Your task to perform on an android device: toggle translation in the chrome app Image 0: 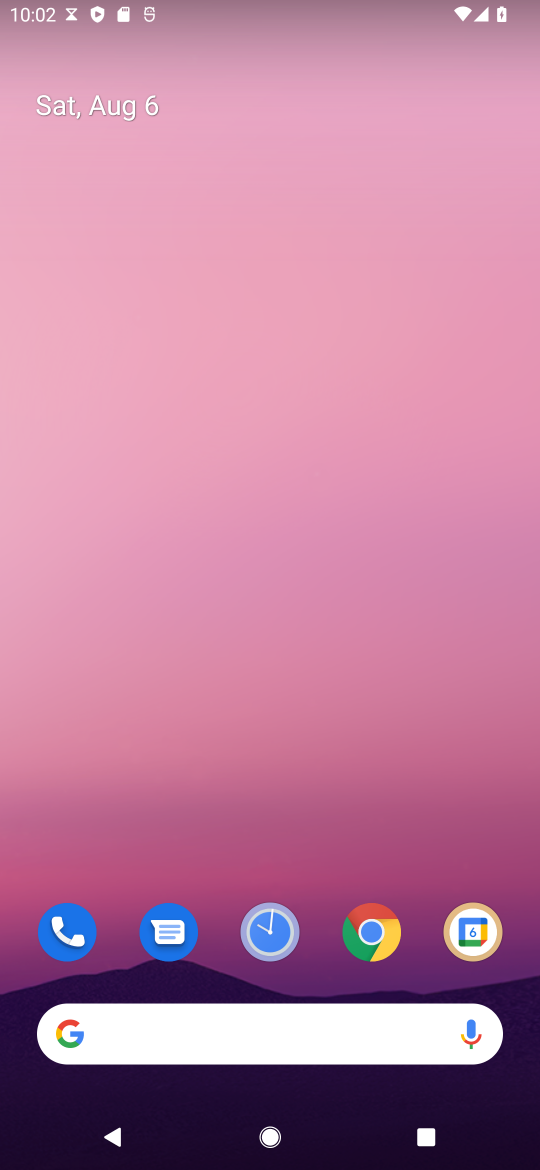
Step 0: click (372, 934)
Your task to perform on an android device: toggle translation in the chrome app Image 1: 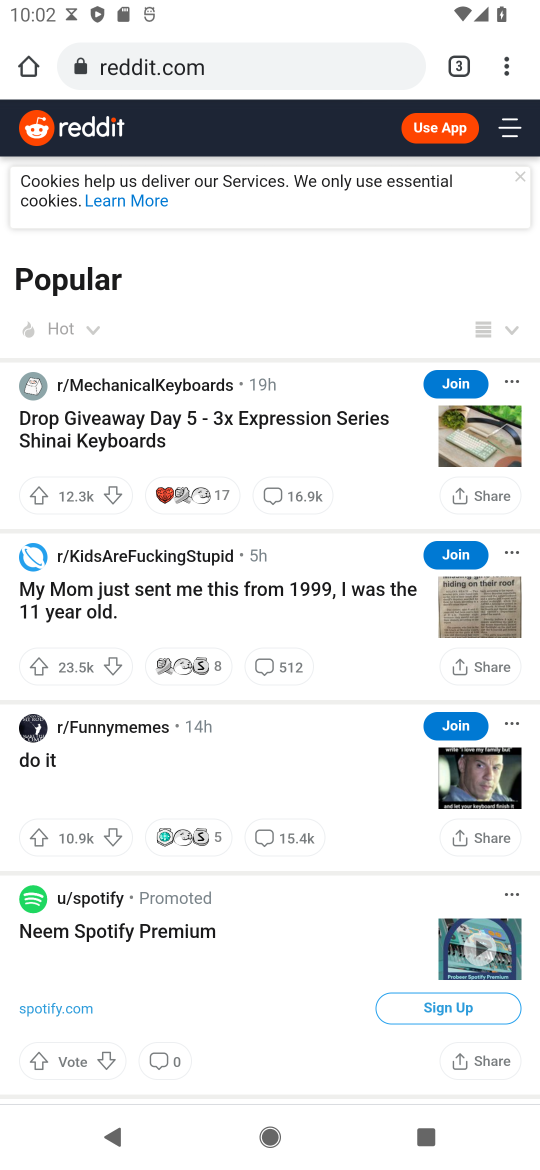
Step 1: click (507, 69)
Your task to perform on an android device: toggle translation in the chrome app Image 2: 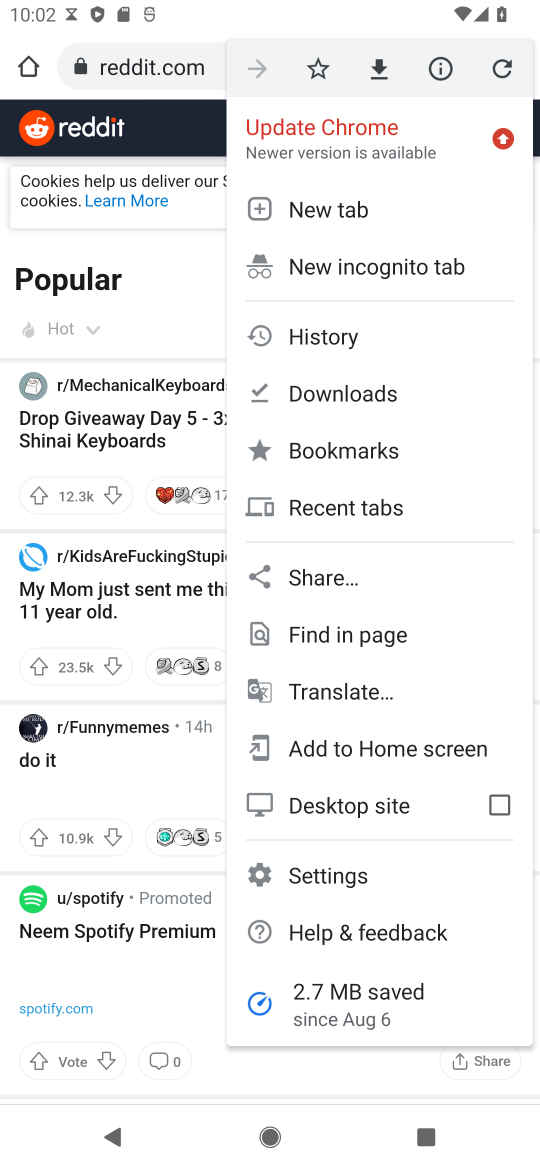
Step 2: click (352, 879)
Your task to perform on an android device: toggle translation in the chrome app Image 3: 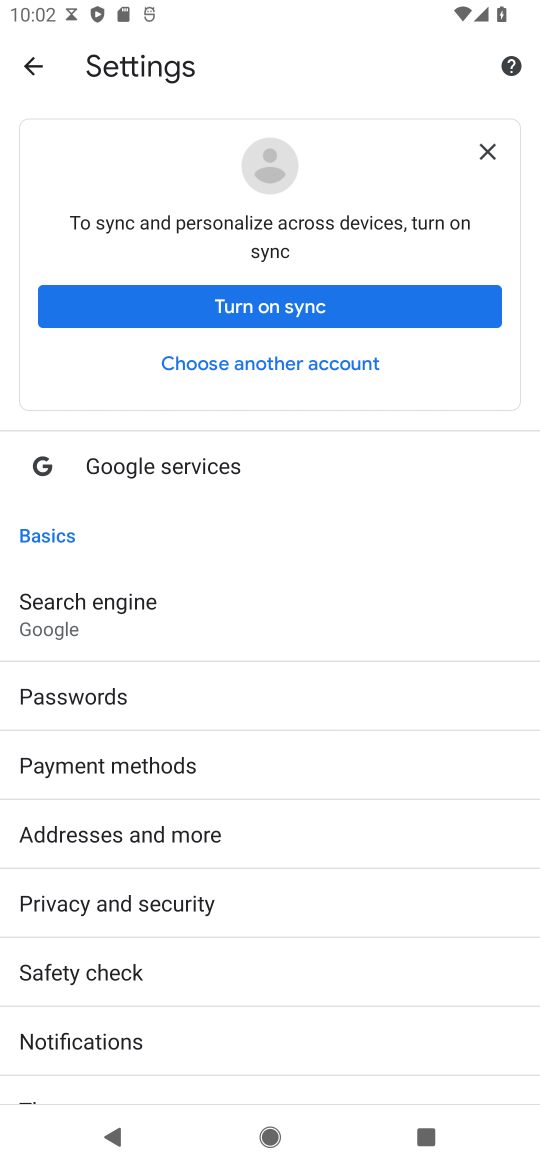
Step 3: drag from (100, 871) to (203, 724)
Your task to perform on an android device: toggle translation in the chrome app Image 4: 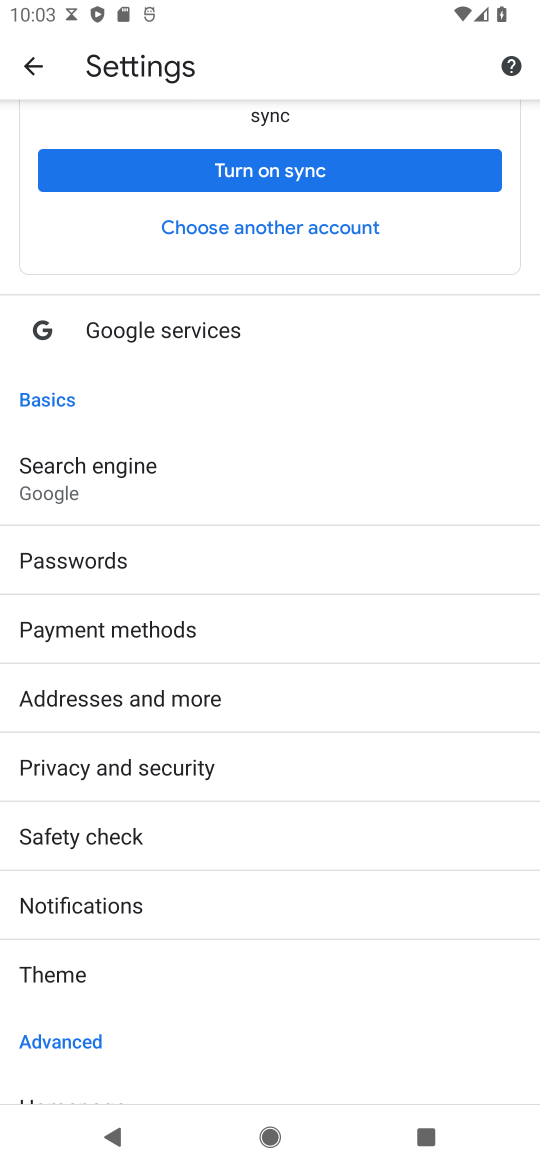
Step 4: drag from (129, 929) to (164, 772)
Your task to perform on an android device: toggle translation in the chrome app Image 5: 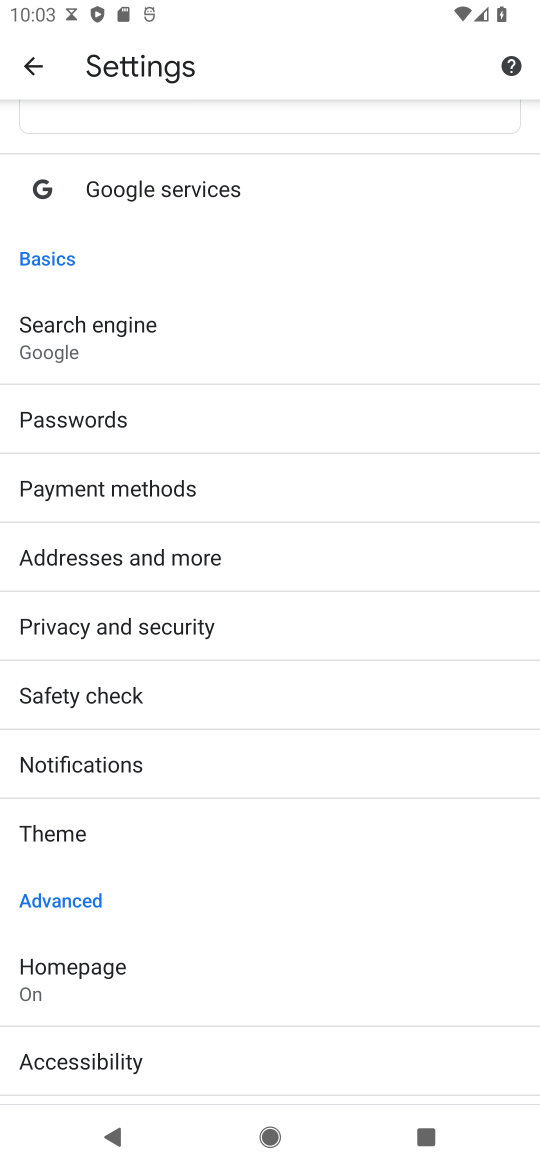
Step 5: drag from (143, 939) to (230, 789)
Your task to perform on an android device: toggle translation in the chrome app Image 6: 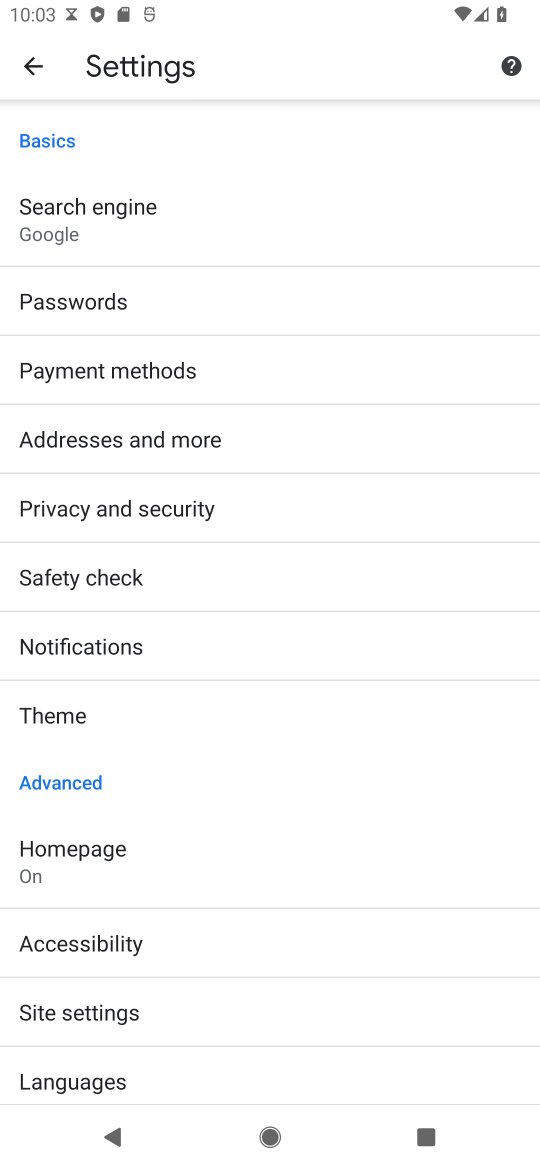
Step 6: drag from (155, 974) to (264, 815)
Your task to perform on an android device: toggle translation in the chrome app Image 7: 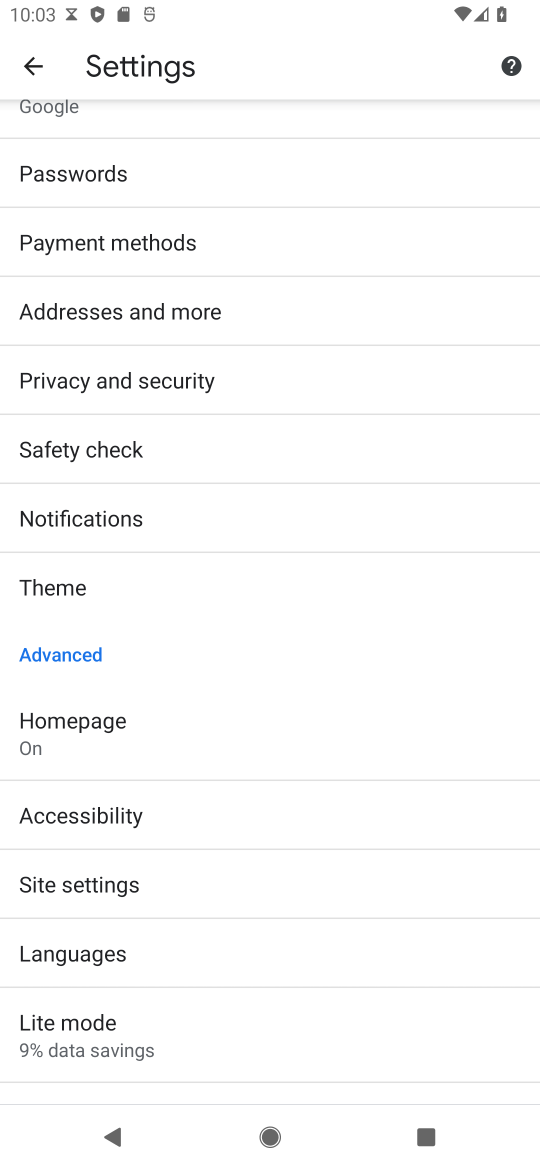
Step 7: click (108, 949)
Your task to perform on an android device: toggle translation in the chrome app Image 8: 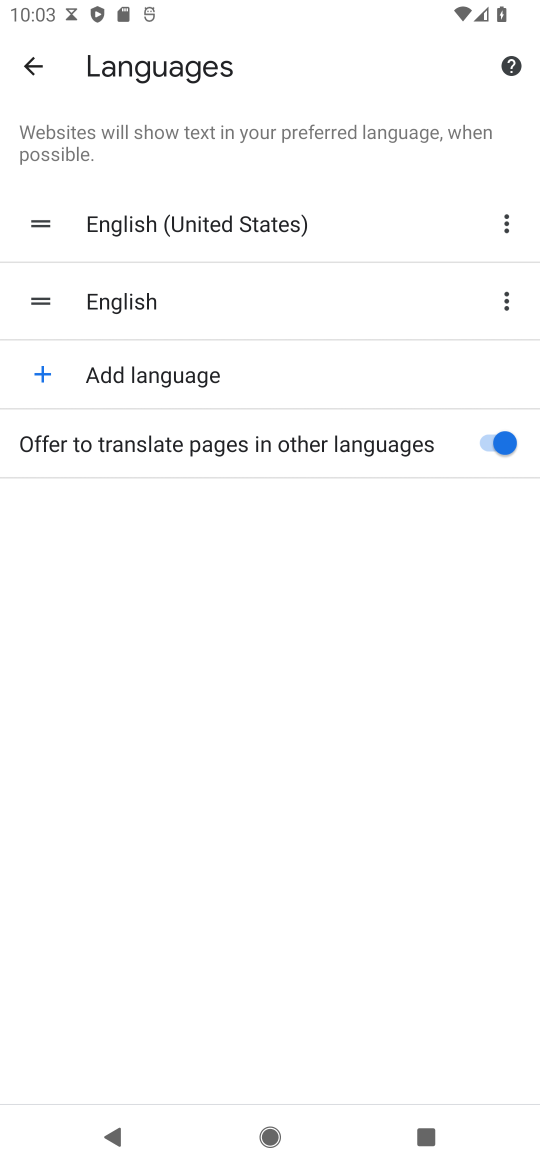
Step 8: click (501, 453)
Your task to perform on an android device: toggle translation in the chrome app Image 9: 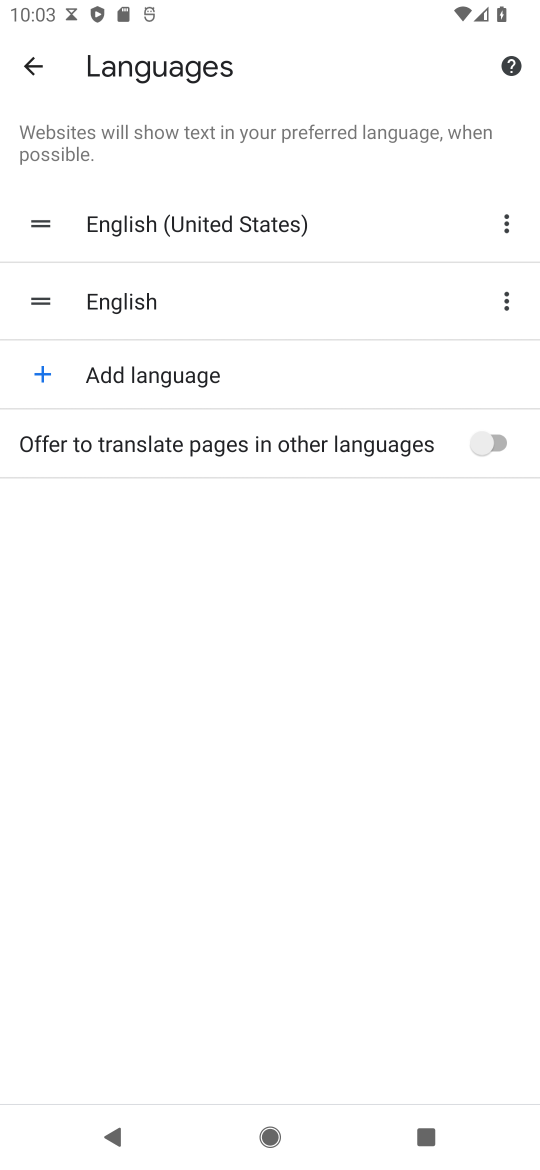
Step 9: task complete